Your task to perform on an android device: make emails show in primary in the gmail app Image 0: 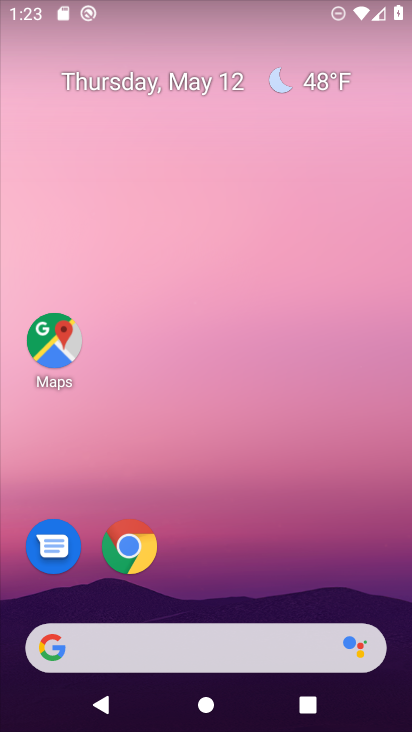
Step 0: drag from (235, 684) to (315, 309)
Your task to perform on an android device: make emails show in primary in the gmail app Image 1: 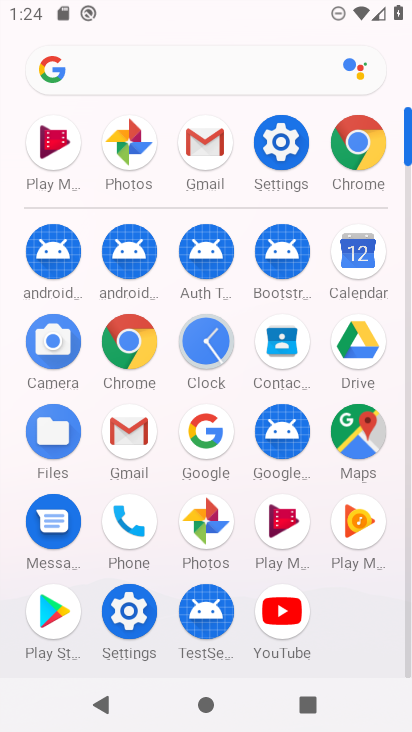
Step 1: click (128, 418)
Your task to perform on an android device: make emails show in primary in the gmail app Image 2: 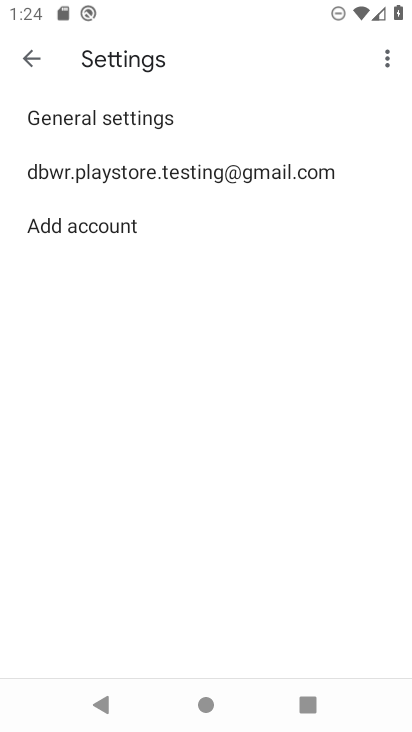
Step 2: click (132, 181)
Your task to perform on an android device: make emails show in primary in the gmail app Image 3: 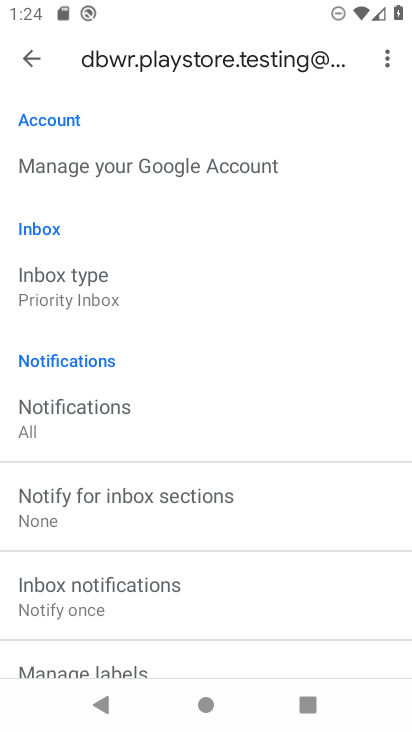
Step 3: click (146, 290)
Your task to perform on an android device: make emails show in primary in the gmail app Image 4: 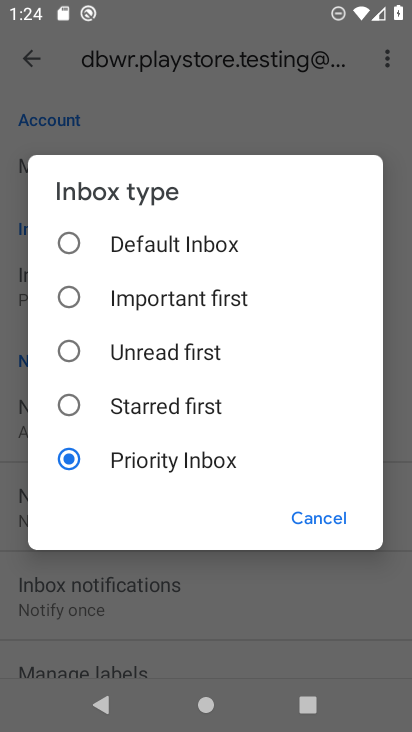
Step 4: click (134, 248)
Your task to perform on an android device: make emails show in primary in the gmail app Image 5: 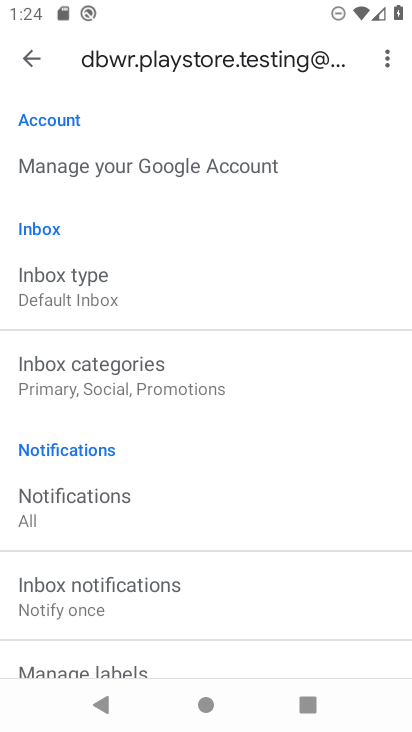
Step 5: task complete